Your task to perform on an android device: change notifications settings Image 0: 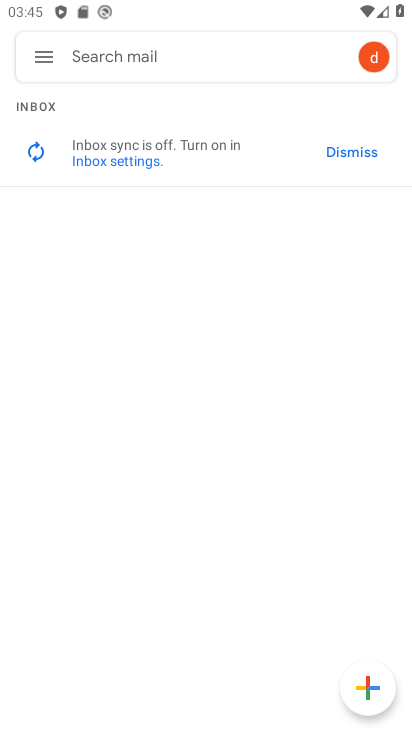
Step 0: press home button
Your task to perform on an android device: change notifications settings Image 1: 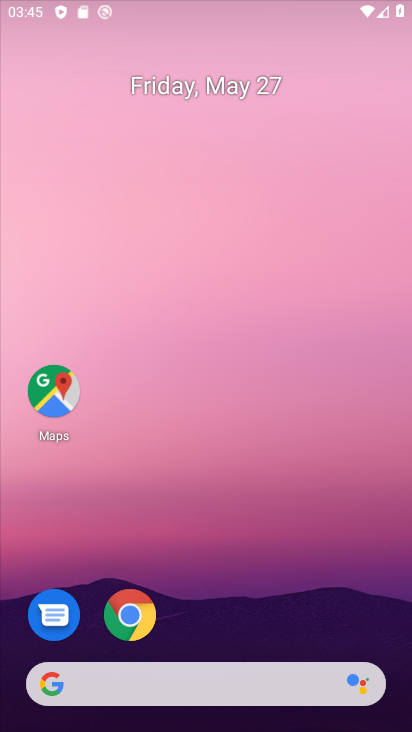
Step 1: drag from (141, 726) to (92, 124)
Your task to perform on an android device: change notifications settings Image 2: 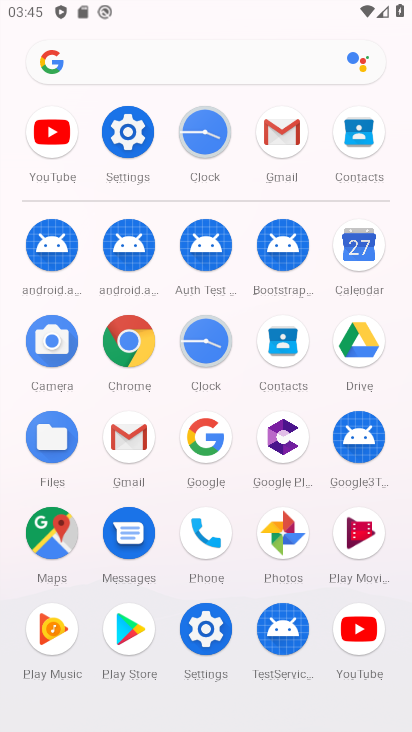
Step 2: click (184, 632)
Your task to perform on an android device: change notifications settings Image 3: 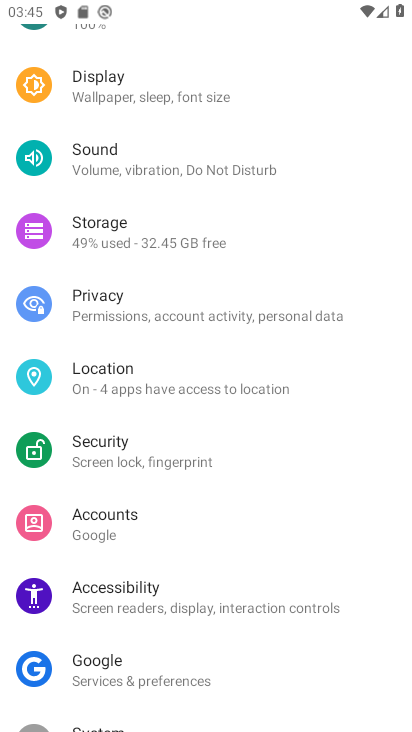
Step 3: drag from (364, 173) to (349, 545)
Your task to perform on an android device: change notifications settings Image 4: 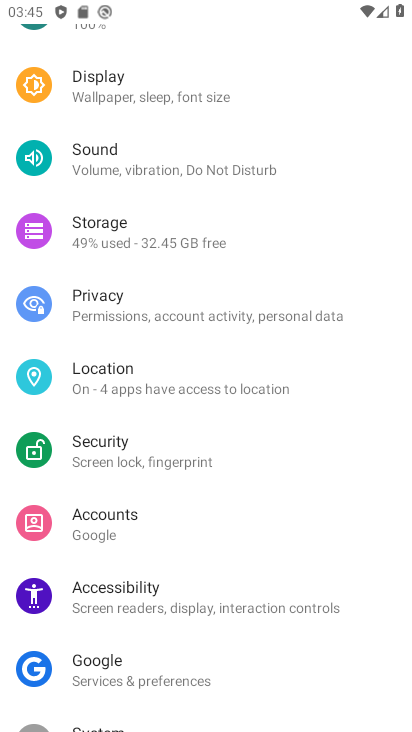
Step 4: drag from (337, 110) to (351, 578)
Your task to perform on an android device: change notifications settings Image 5: 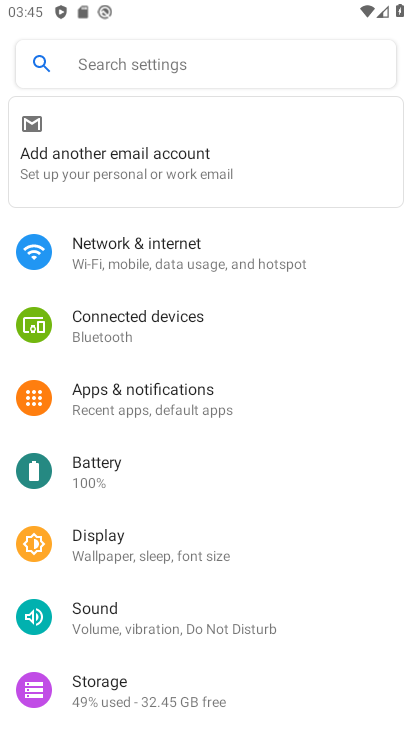
Step 5: click (136, 398)
Your task to perform on an android device: change notifications settings Image 6: 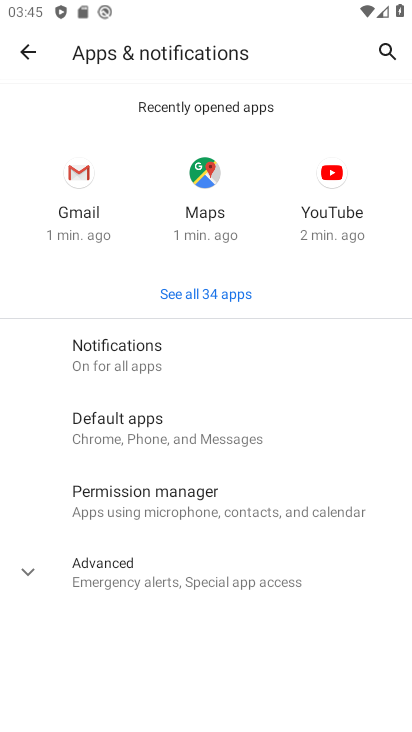
Step 6: click (145, 572)
Your task to perform on an android device: change notifications settings Image 7: 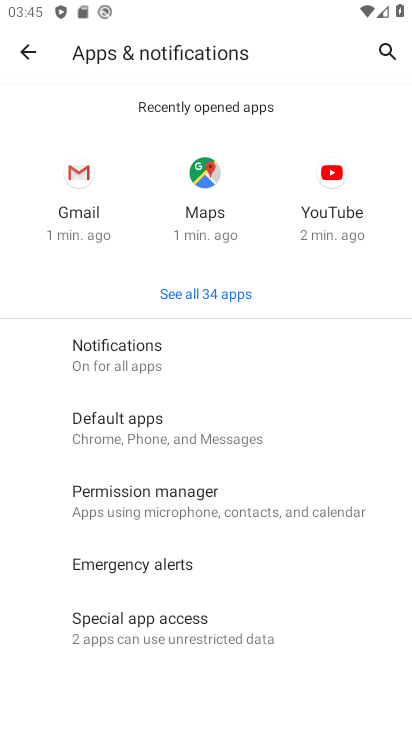
Step 7: click (113, 363)
Your task to perform on an android device: change notifications settings Image 8: 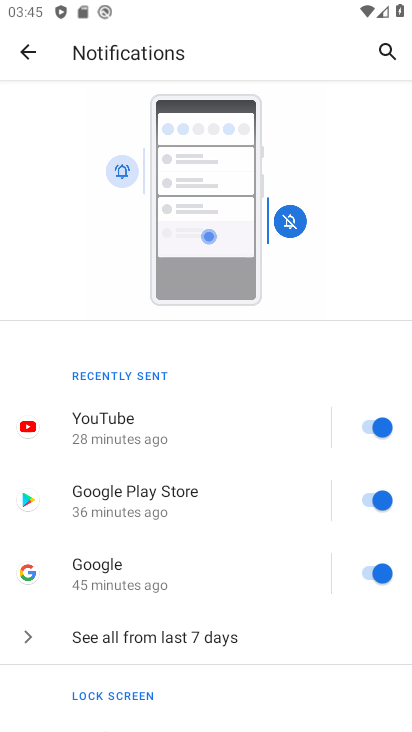
Step 8: click (373, 505)
Your task to perform on an android device: change notifications settings Image 9: 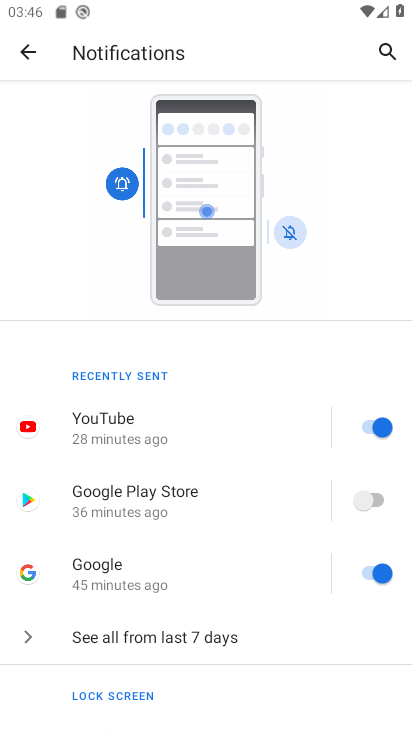
Step 9: task complete